Your task to perform on an android device: Search for dining sets on article.com Image 0: 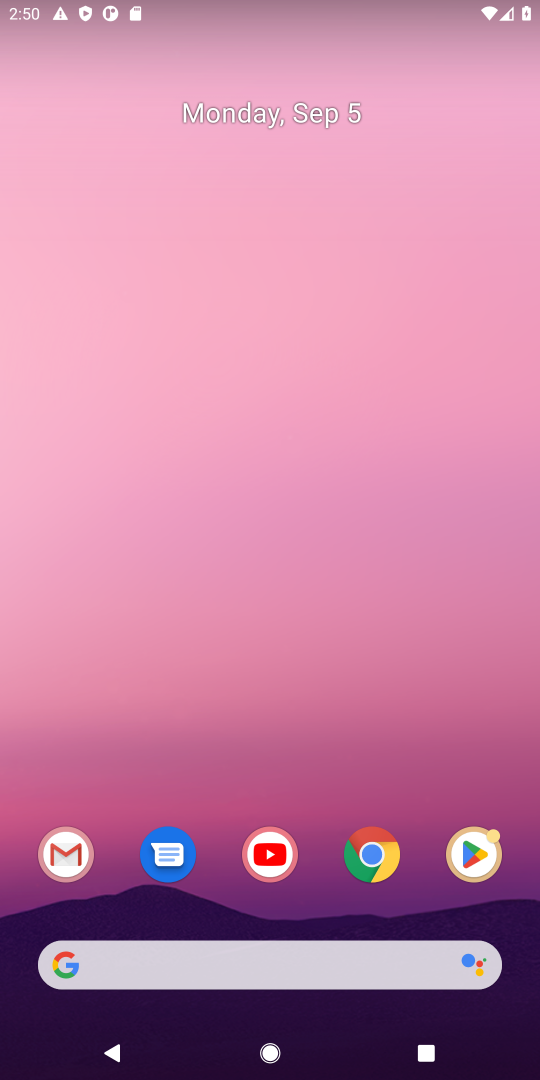
Step 0: click (414, 955)
Your task to perform on an android device: Search for dining sets on article.com Image 1: 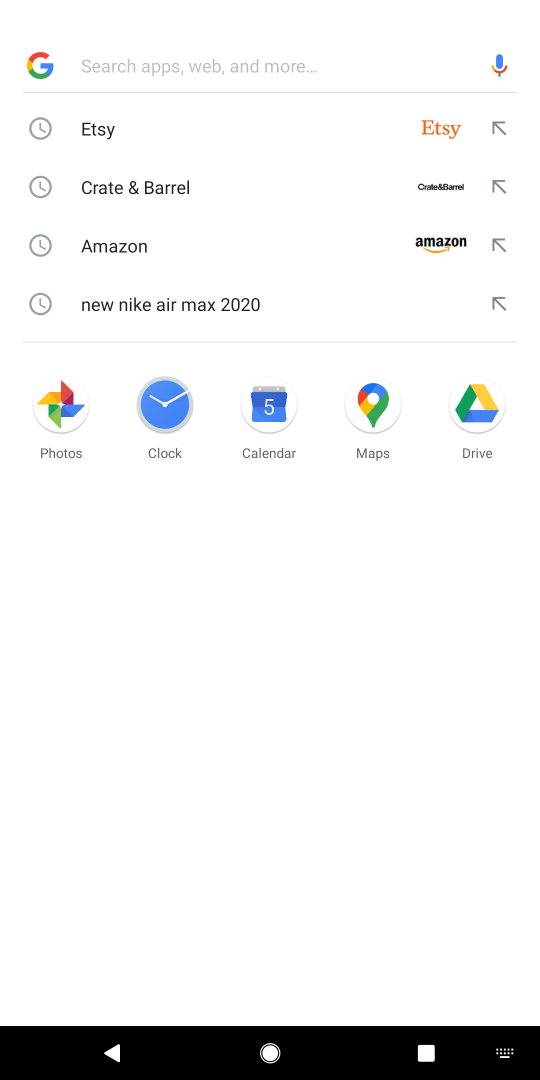
Step 1: type "article.com"
Your task to perform on an android device: Search for dining sets on article.com Image 2: 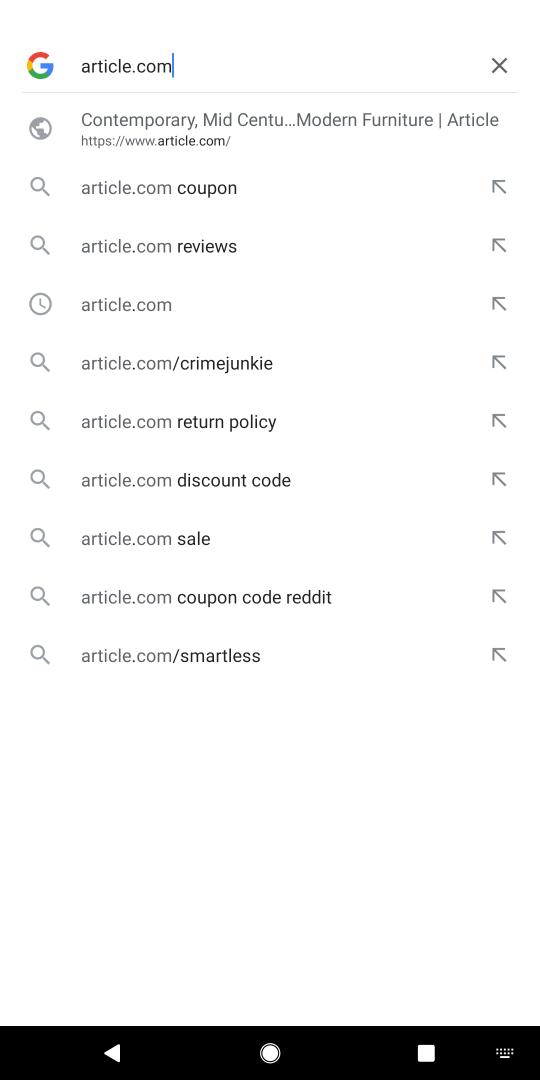
Step 2: press enter
Your task to perform on an android device: Search for dining sets on article.com Image 3: 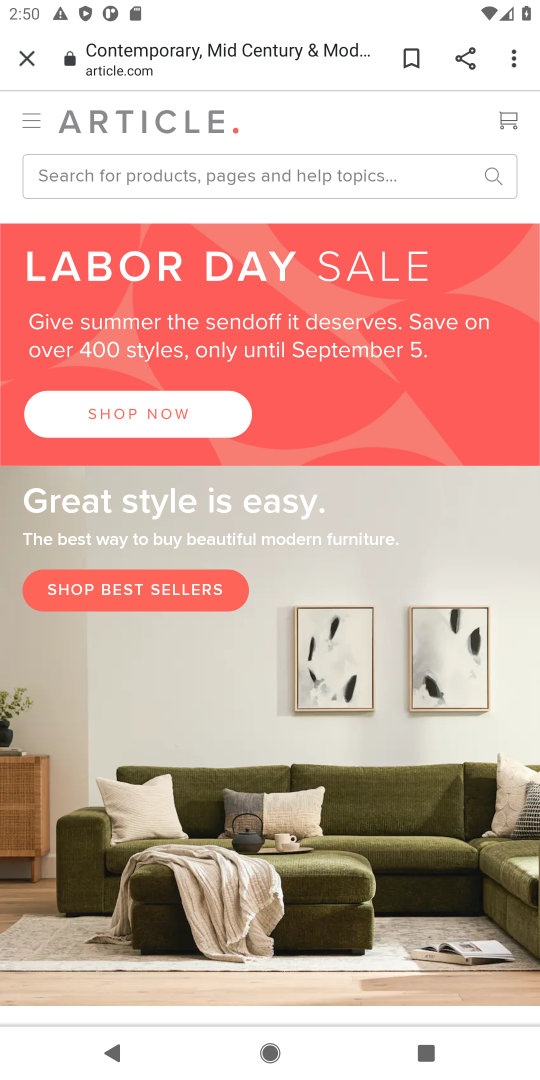
Step 3: click (103, 171)
Your task to perform on an android device: Search for dining sets on article.com Image 4: 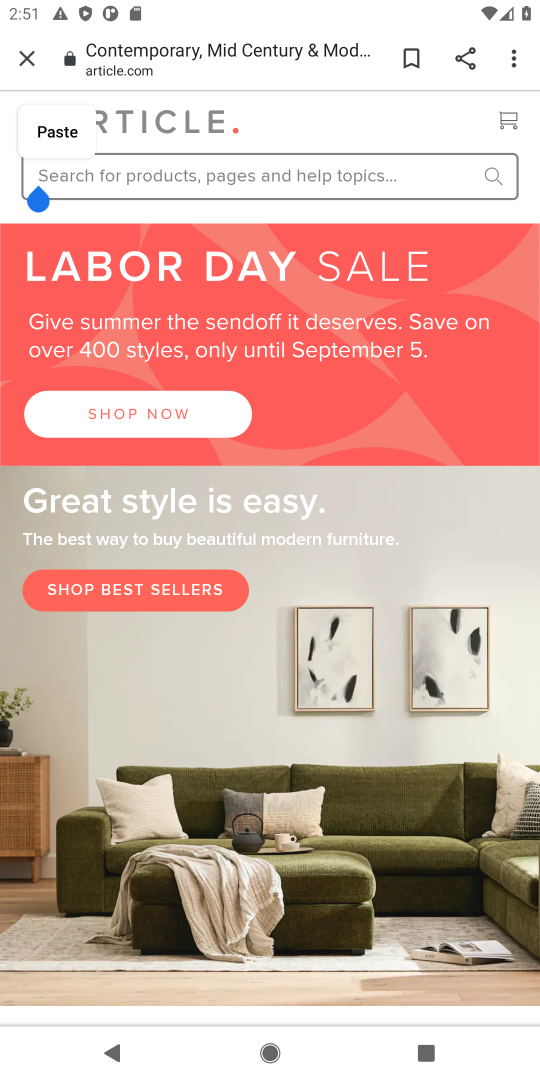
Step 4: press enter
Your task to perform on an android device: Search for dining sets on article.com Image 5: 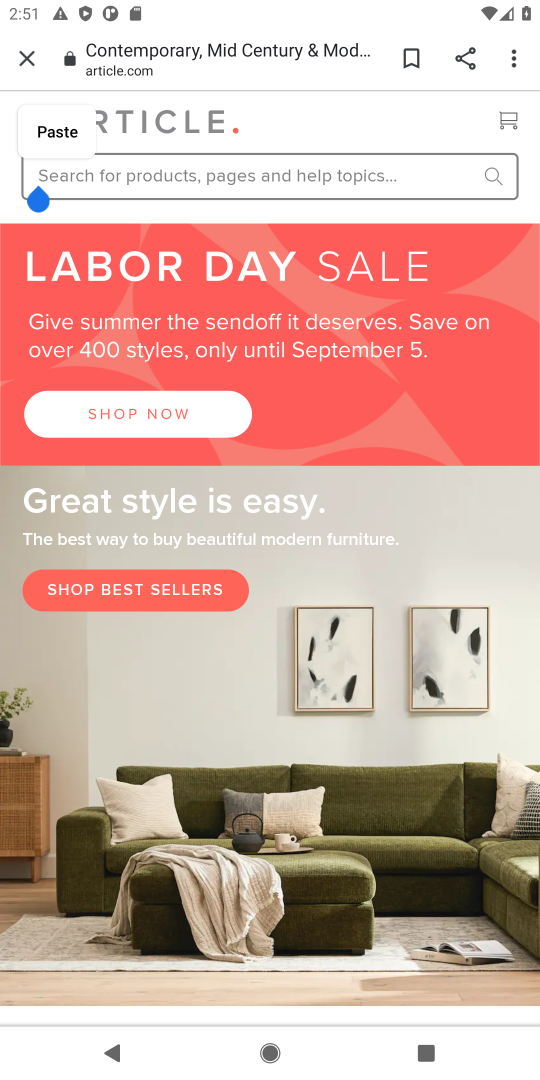
Step 5: type "dining sets"
Your task to perform on an android device: Search for dining sets on article.com Image 6: 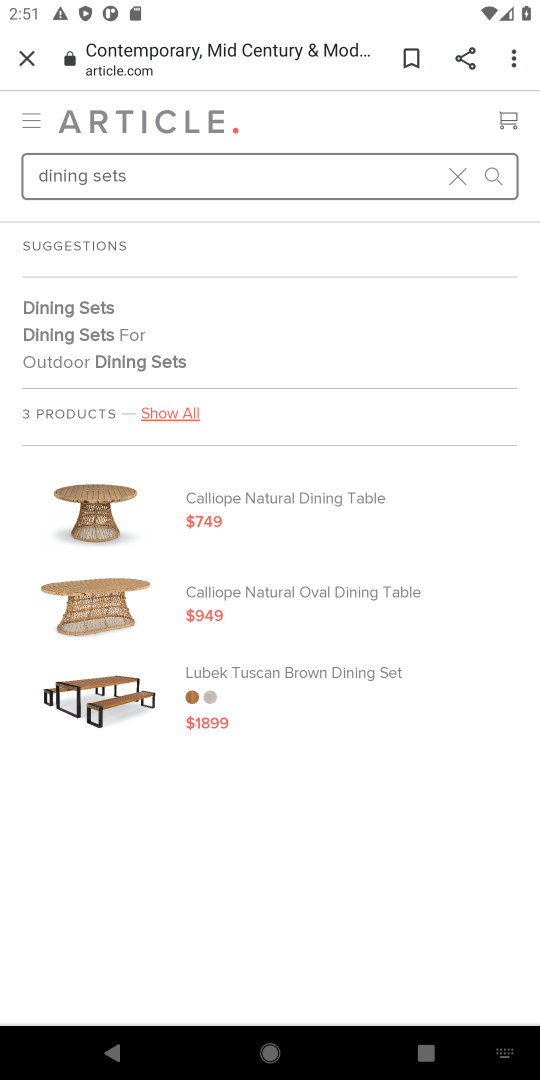
Step 6: task complete